Your task to perform on an android device: Search for hotels in London Image 0: 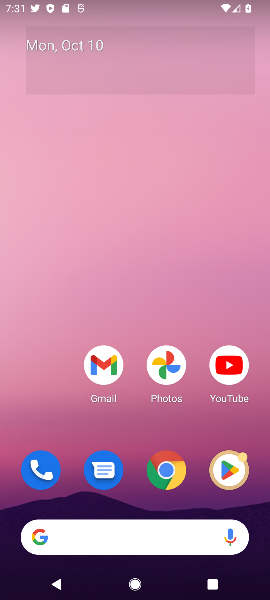
Step 0: click (156, 458)
Your task to perform on an android device: Search for hotels in London Image 1: 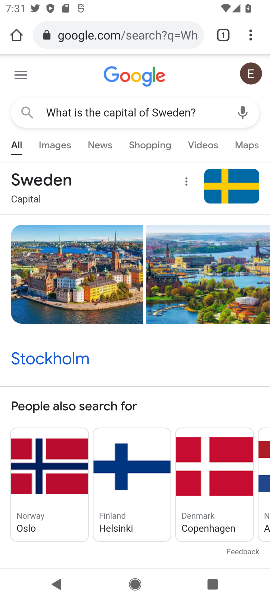
Step 1: click (143, 37)
Your task to perform on an android device: Search for hotels in London Image 2: 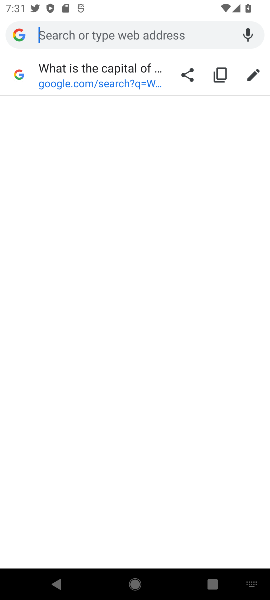
Step 2: type "Search for hotels in London"
Your task to perform on an android device: Search for hotels in London Image 3: 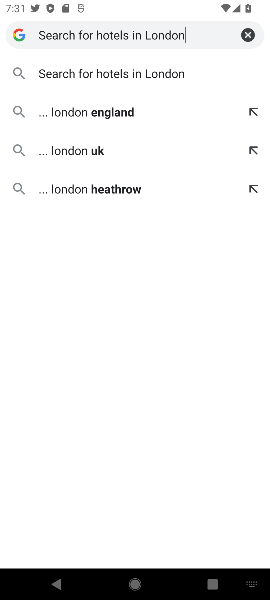
Step 3: click (202, 62)
Your task to perform on an android device: Search for hotels in London Image 4: 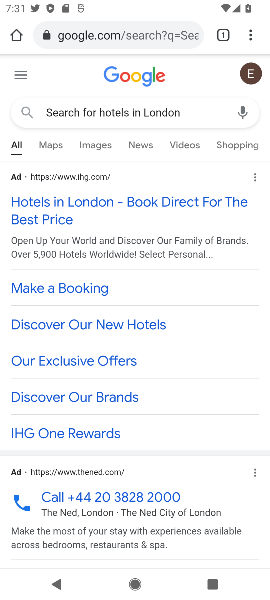
Step 4: task complete